Your task to perform on an android device: Open wifi settings Image 0: 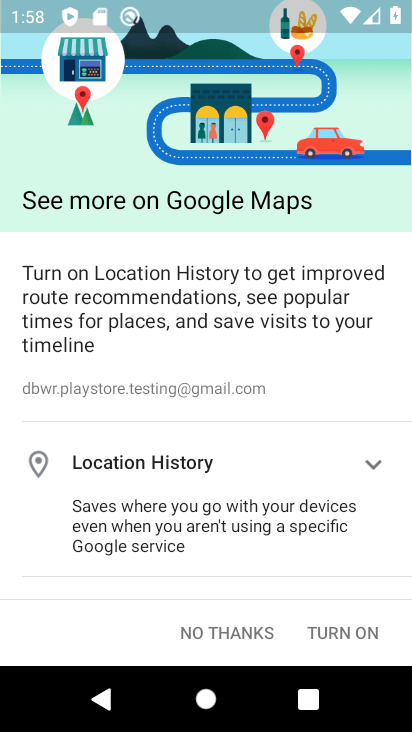
Step 0: click (343, 631)
Your task to perform on an android device: Open wifi settings Image 1: 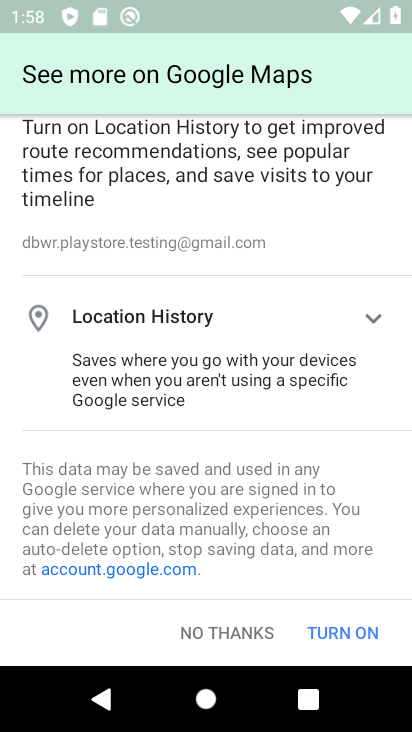
Step 1: click (343, 631)
Your task to perform on an android device: Open wifi settings Image 2: 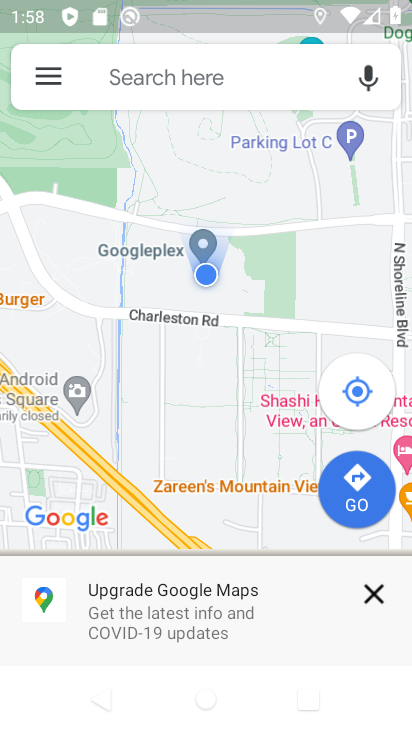
Step 2: press back button
Your task to perform on an android device: Open wifi settings Image 3: 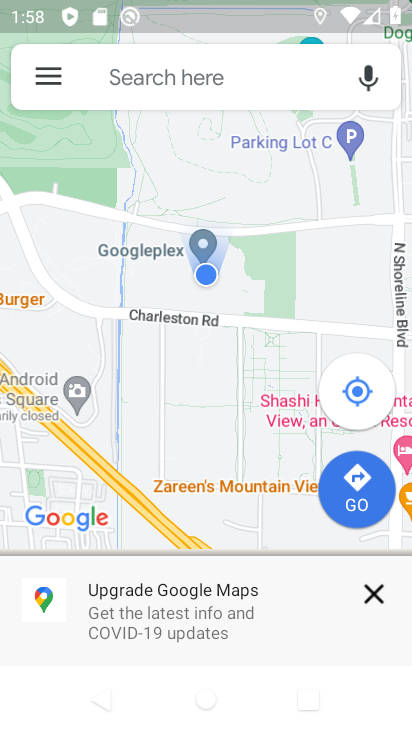
Step 3: press back button
Your task to perform on an android device: Open wifi settings Image 4: 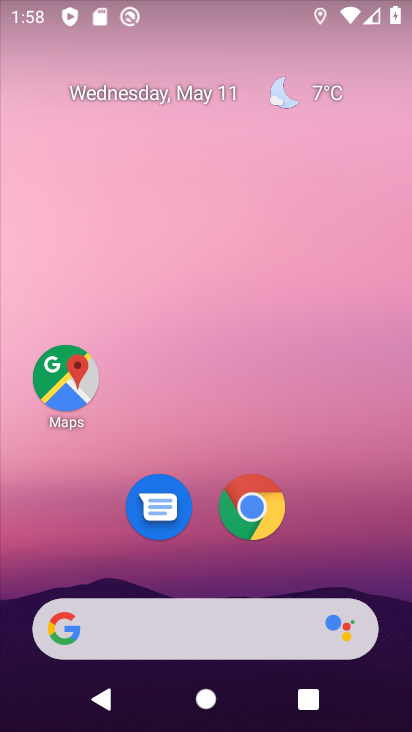
Step 4: drag from (345, 531) to (253, 17)
Your task to perform on an android device: Open wifi settings Image 5: 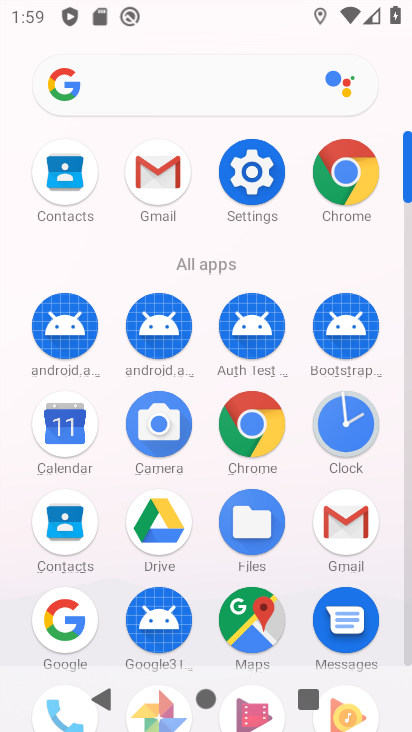
Step 5: click (250, 170)
Your task to perform on an android device: Open wifi settings Image 6: 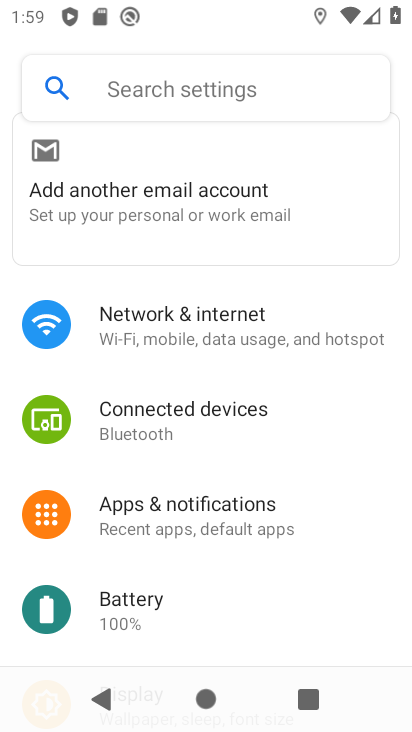
Step 6: click (204, 327)
Your task to perform on an android device: Open wifi settings Image 7: 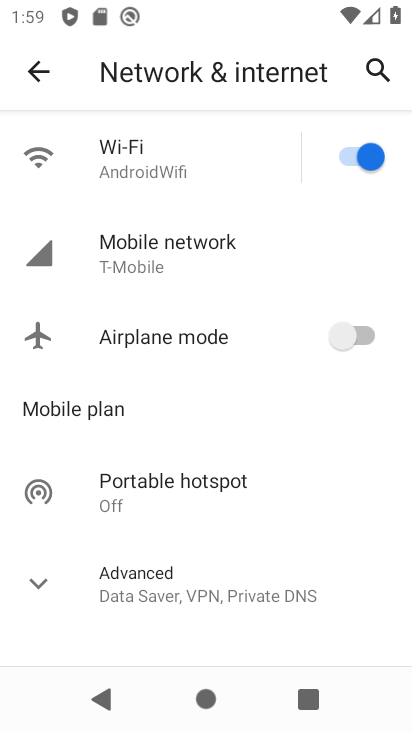
Step 7: click (136, 154)
Your task to perform on an android device: Open wifi settings Image 8: 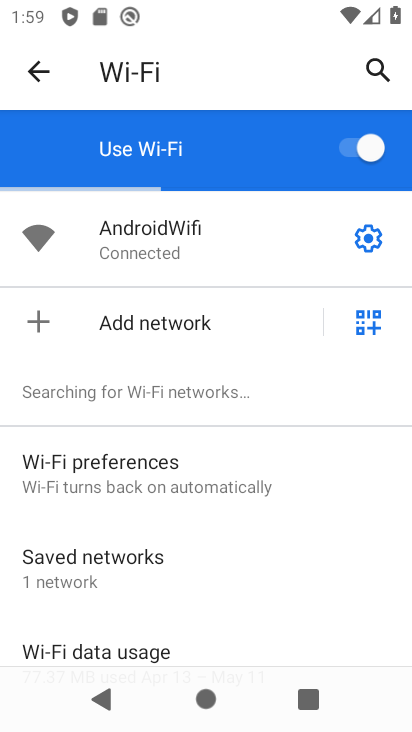
Step 8: task complete